Your task to perform on an android device: Open the calendar app, open the side menu, and click the "Day" option Image 0: 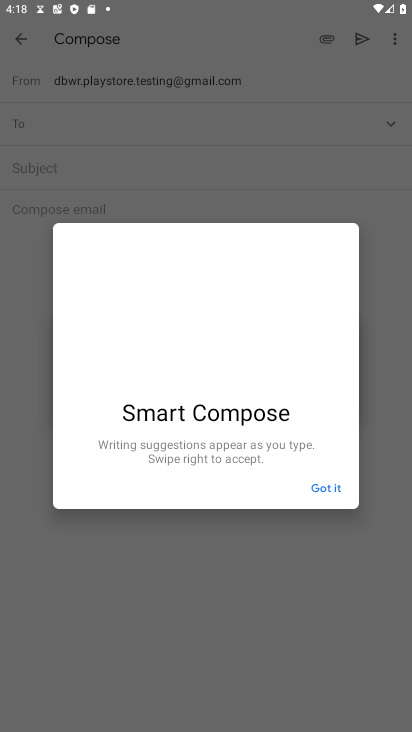
Step 0: press home button
Your task to perform on an android device: Open the calendar app, open the side menu, and click the "Day" option Image 1: 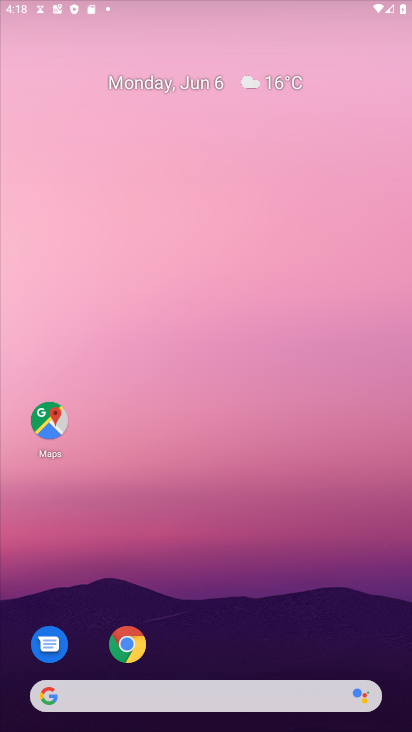
Step 1: drag from (100, 731) to (146, 59)
Your task to perform on an android device: Open the calendar app, open the side menu, and click the "Day" option Image 2: 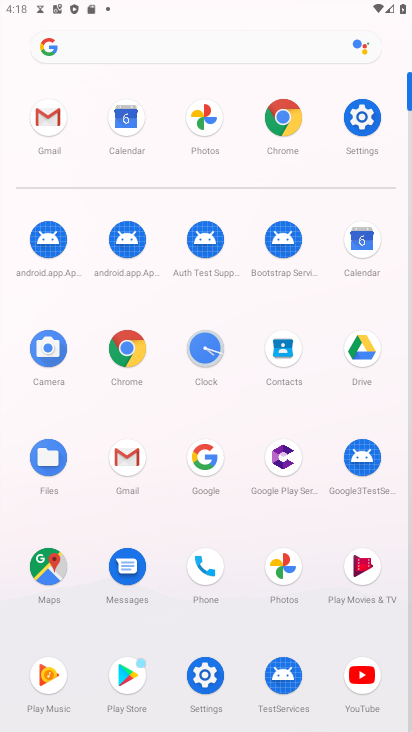
Step 2: click (367, 242)
Your task to perform on an android device: Open the calendar app, open the side menu, and click the "Day" option Image 3: 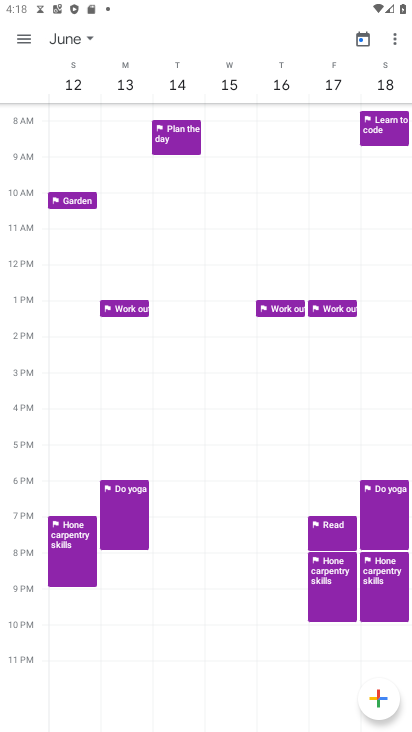
Step 3: click (24, 40)
Your task to perform on an android device: Open the calendar app, open the side menu, and click the "Day" option Image 4: 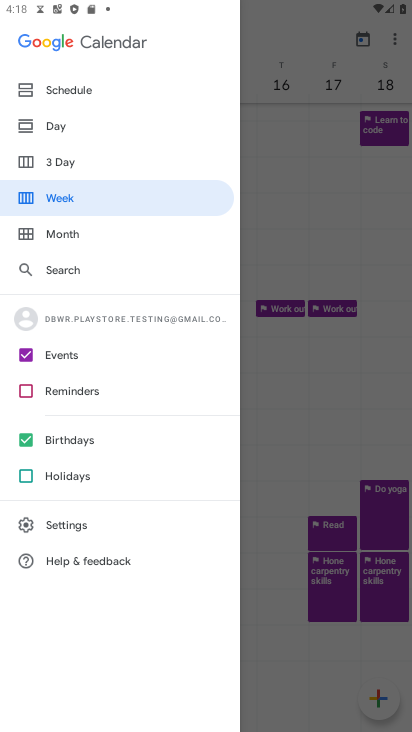
Step 4: click (50, 117)
Your task to perform on an android device: Open the calendar app, open the side menu, and click the "Day" option Image 5: 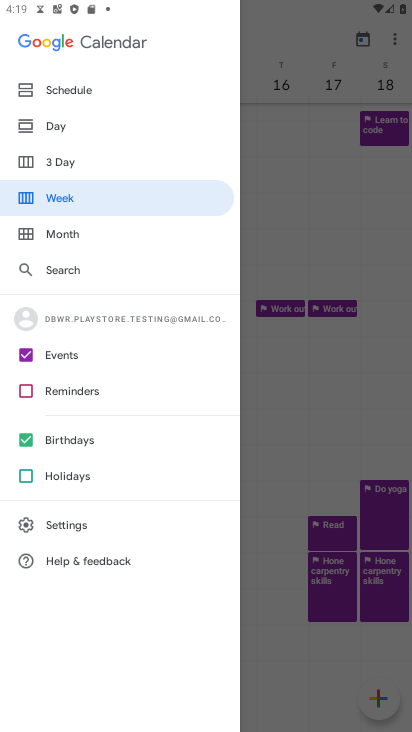
Step 5: click (99, 122)
Your task to perform on an android device: Open the calendar app, open the side menu, and click the "Day" option Image 6: 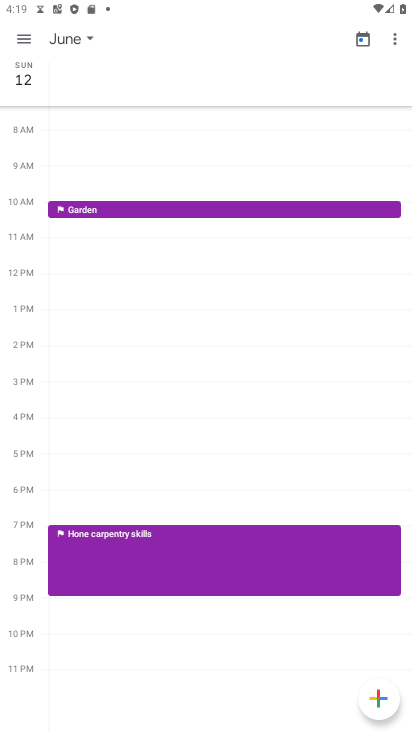
Step 6: task complete